Your task to perform on an android device: Do I have any events today? Image 0: 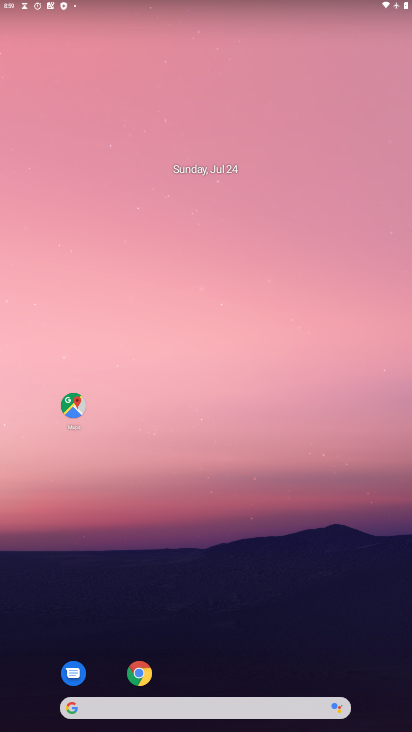
Step 0: drag from (195, 615) to (129, 0)
Your task to perform on an android device: Do I have any events today? Image 1: 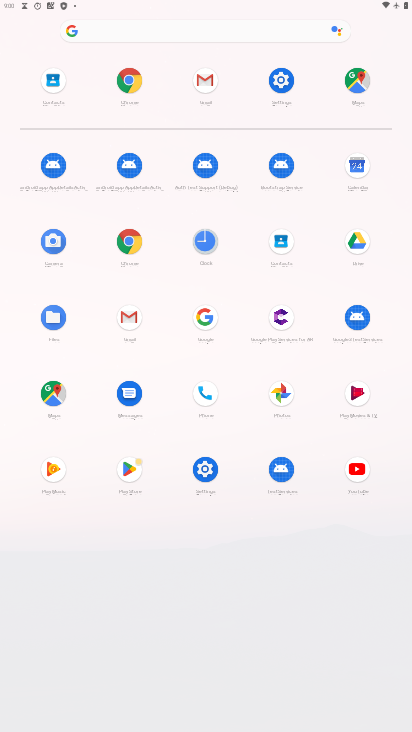
Step 1: drag from (214, 633) to (213, 470)
Your task to perform on an android device: Do I have any events today? Image 2: 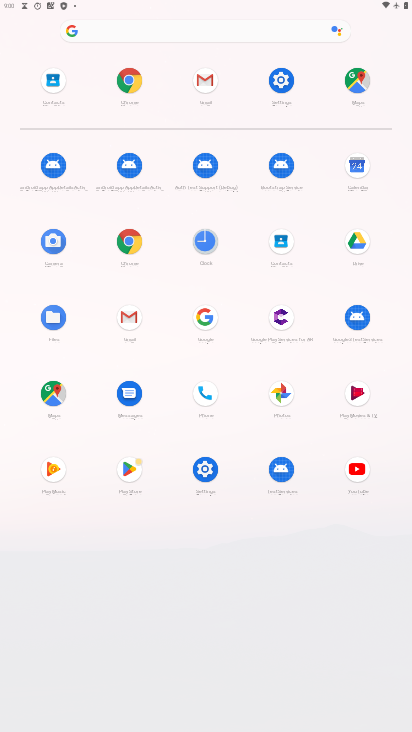
Step 2: click (352, 157)
Your task to perform on an android device: Do I have any events today? Image 3: 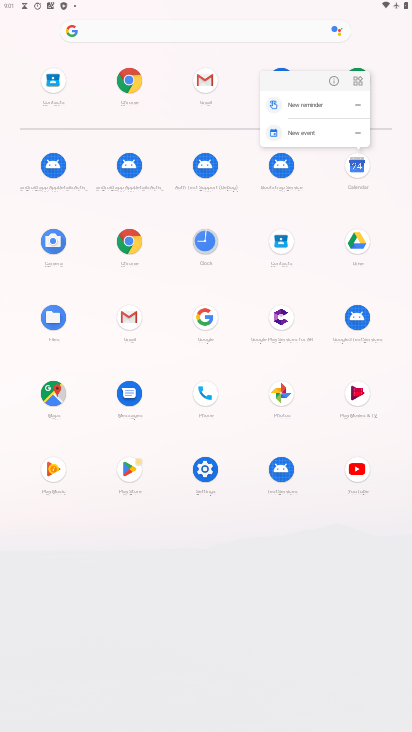
Step 3: drag from (194, 585) to (213, 307)
Your task to perform on an android device: Do I have any events today? Image 4: 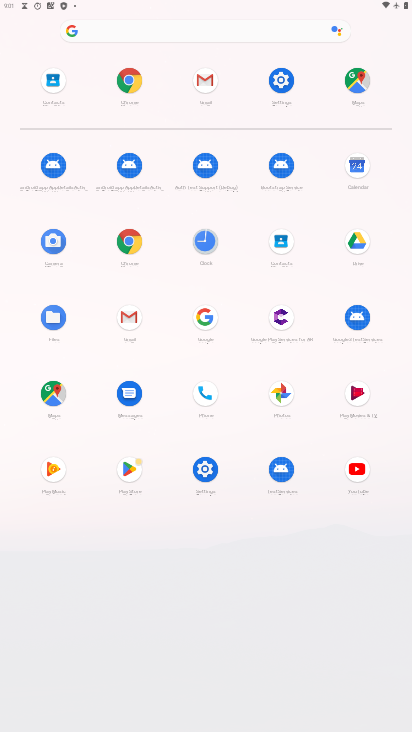
Step 4: drag from (232, 646) to (232, 276)
Your task to perform on an android device: Do I have any events today? Image 5: 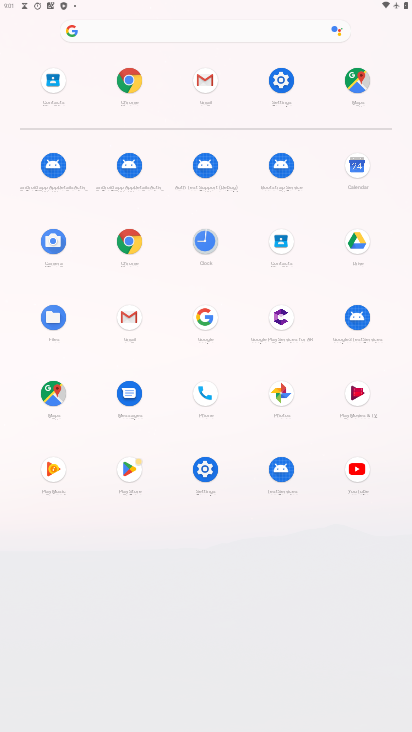
Step 5: click (167, 29)
Your task to perform on an android device: Do I have any events today? Image 6: 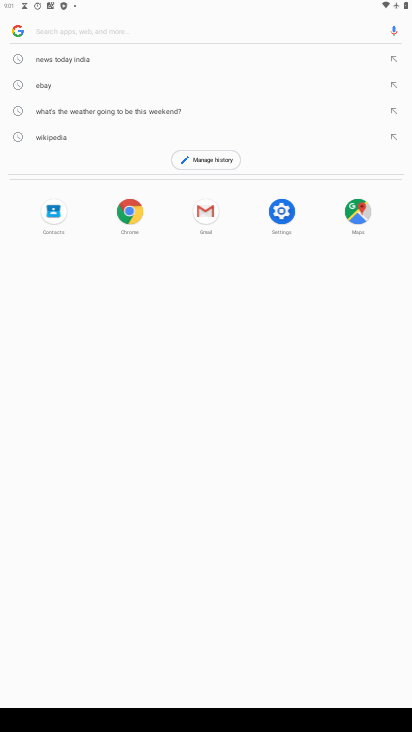
Step 6: press home button
Your task to perform on an android device: Do I have any events today? Image 7: 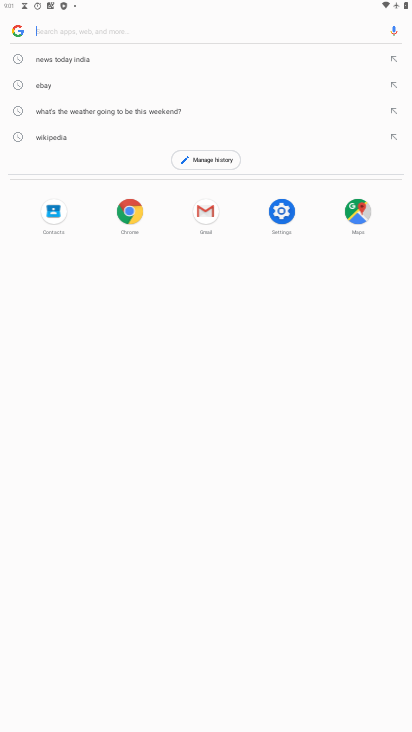
Step 7: drag from (167, 533) to (286, 4)
Your task to perform on an android device: Do I have any events today? Image 8: 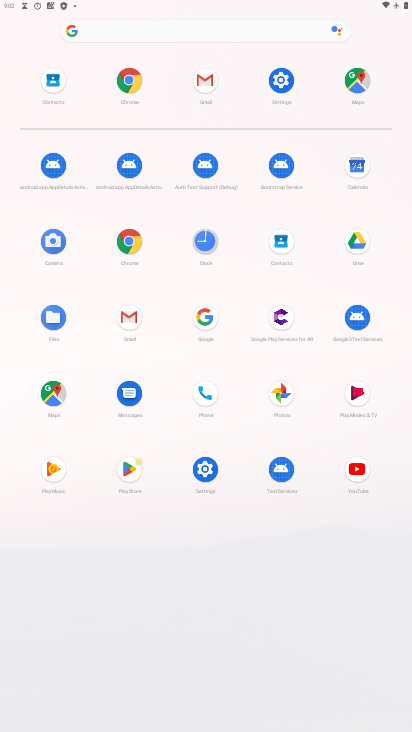
Step 8: click (361, 158)
Your task to perform on an android device: Do I have any events today? Image 9: 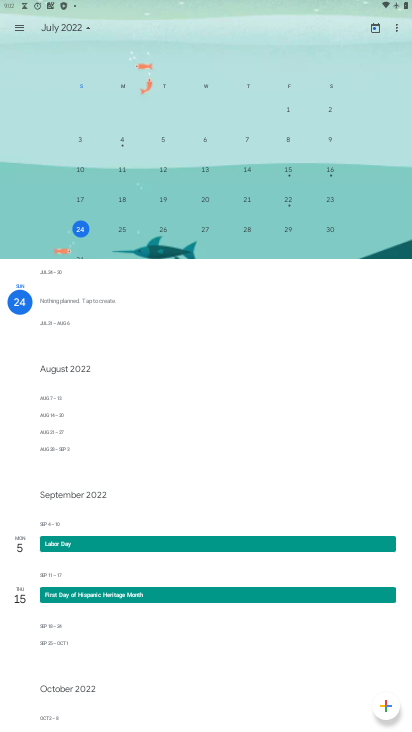
Step 9: click (81, 234)
Your task to perform on an android device: Do I have any events today? Image 10: 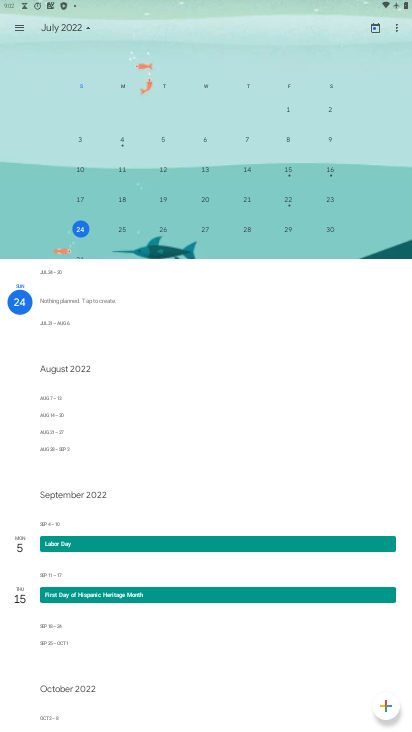
Step 10: task complete